Your task to perform on an android device: open device folders in google photos Image 0: 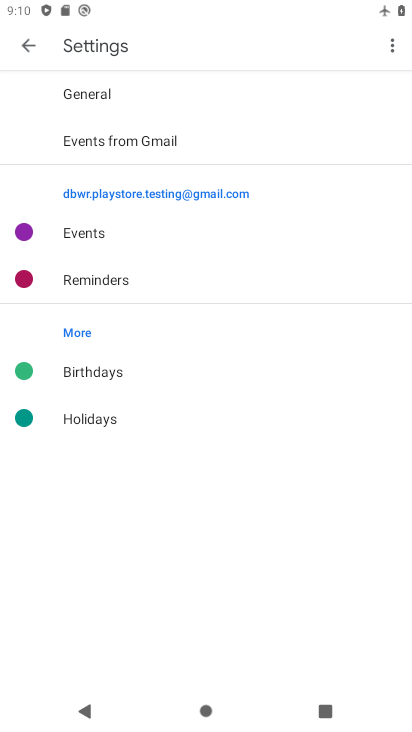
Step 0: press home button
Your task to perform on an android device: open device folders in google photos Image 1: 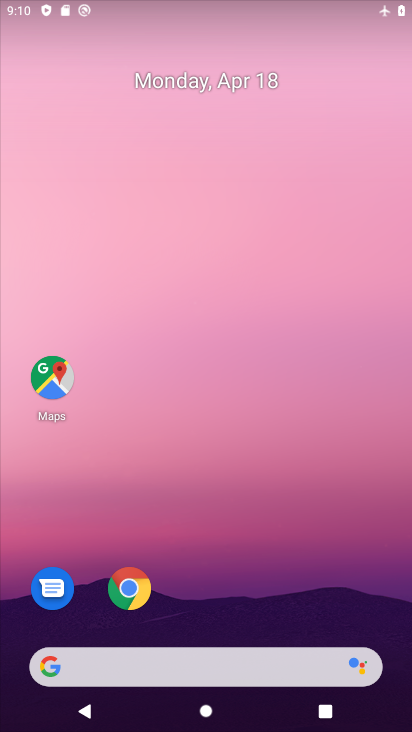
Step 1: drag from (272, 497) to (290, 171)
Your task to perform on an android device: open device folders in google photos Image 2: 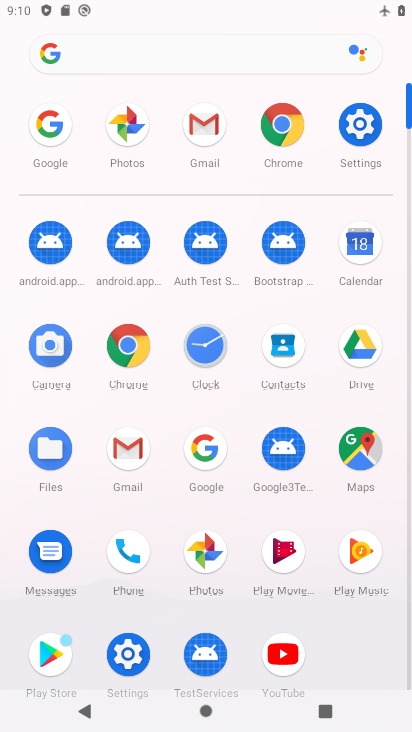
Step 2: click (207, 543)
Your task to perform on an android device: open device folders in google photos Image 3: 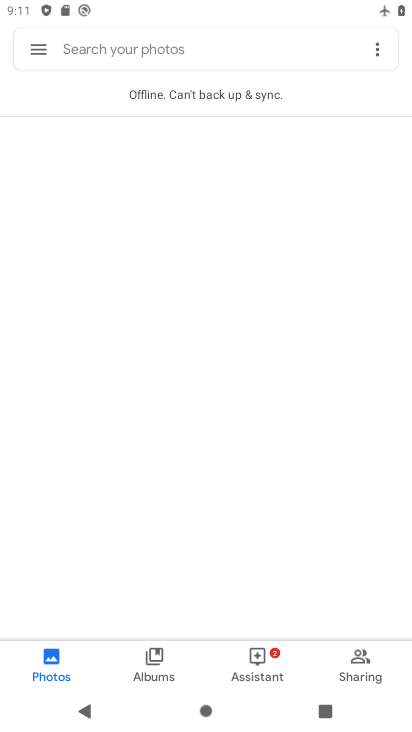
Step 3: task complete